Your task to perform on an android device: empty trash in google photos Image 0: 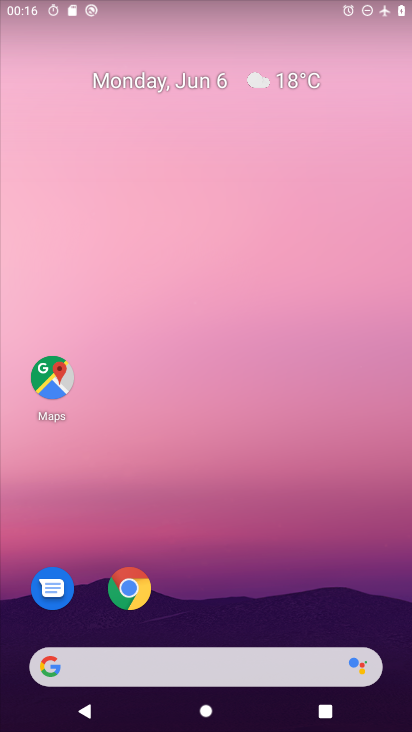
Step 0: drag from (325, 605) to (339, 123)
Your task to perform on an android device: empty trash in google photos Image 1: 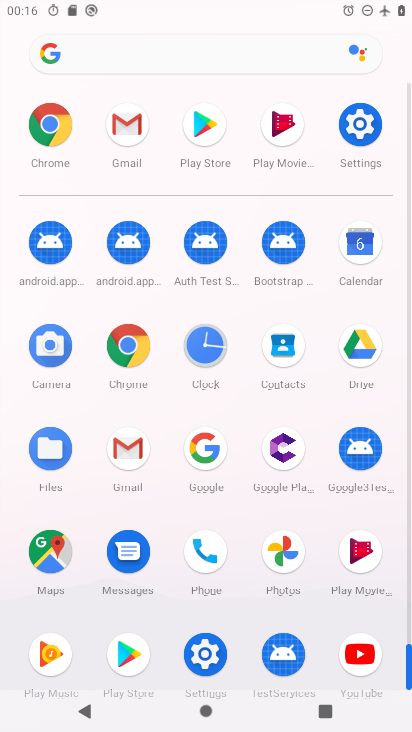
Step 1: click (286, 560)
Your task to perform on an android device: empty trash in google photos Image 2: 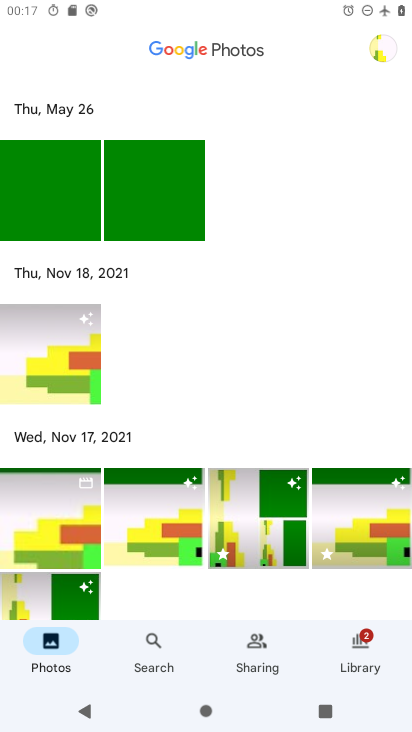
Step 2: click (372, 639)
Your task to perform on an android device: empty trash in google photos Image 3: 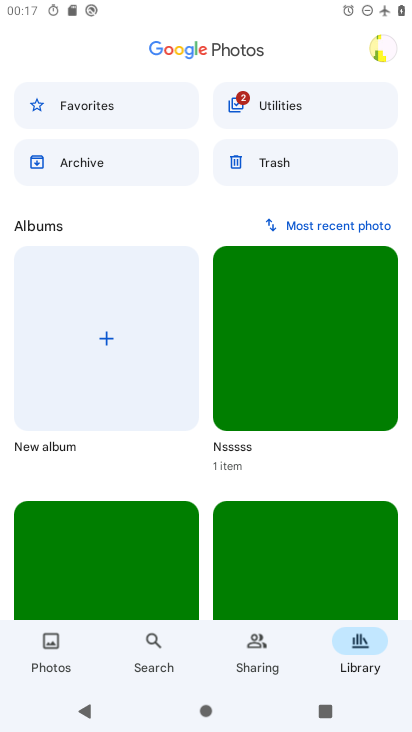
Step 3: click (302, 158)
Your task to perform on an android device: empty trash in google photos Image 4: 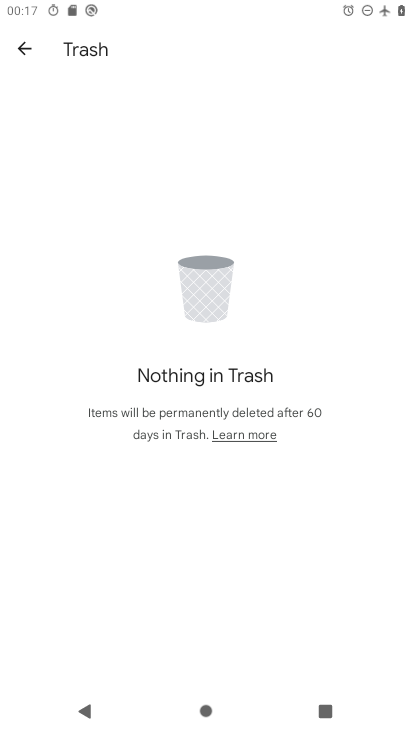
Step 4: task complete